Your task to perform on an android device: Go to privacy settings Image 0: 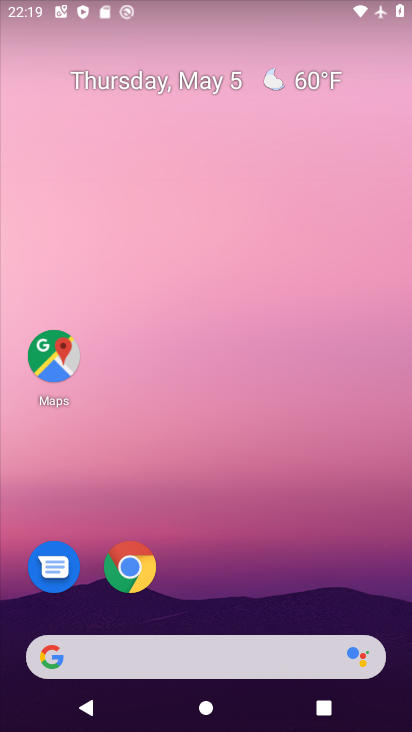
Step 0: click (147, 586)
Your task to perform on an android device: Go to privacy settings Image 1: 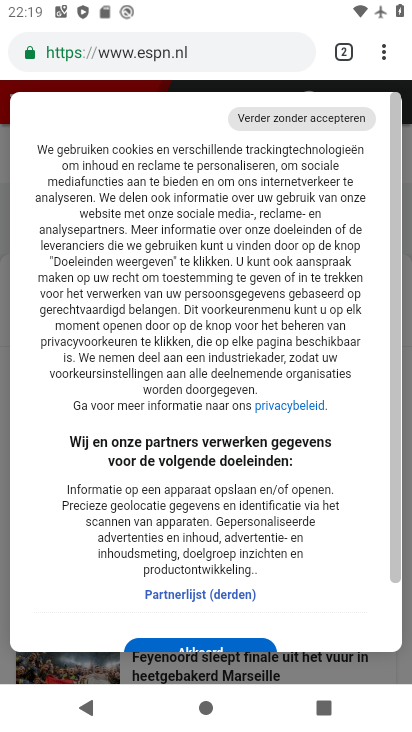
Step 1: click (392, 48)
Your task to perform on an android device: Go to privacy settings Image 2: 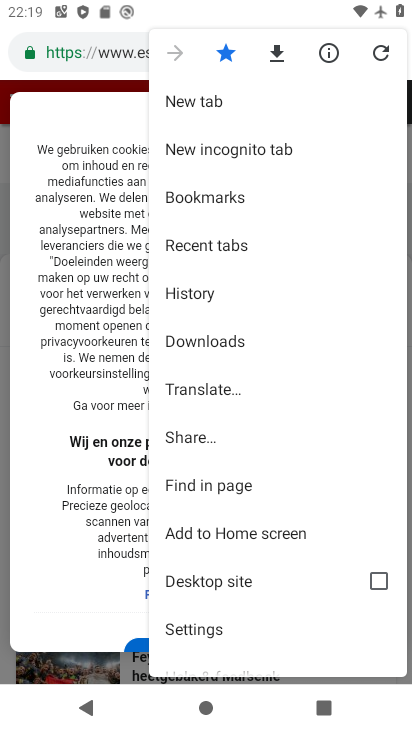
Step 2: click (191, 639)
Your task to perform on an android device: Go to privacy settings Image 3: 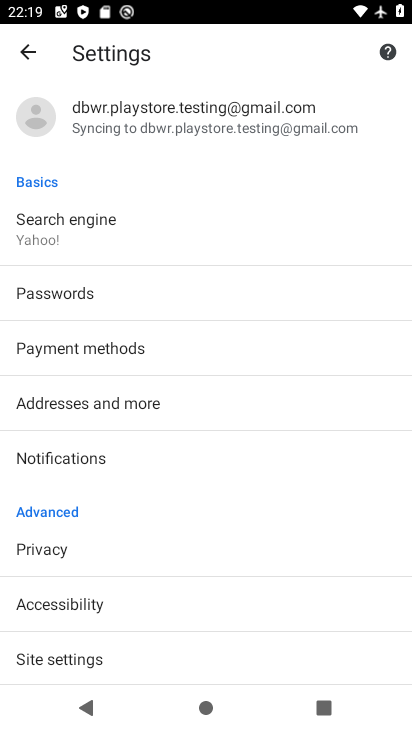
Step 3: click (68, 543)
Your task to perform on an android device: Go to privacy settings Image 4: 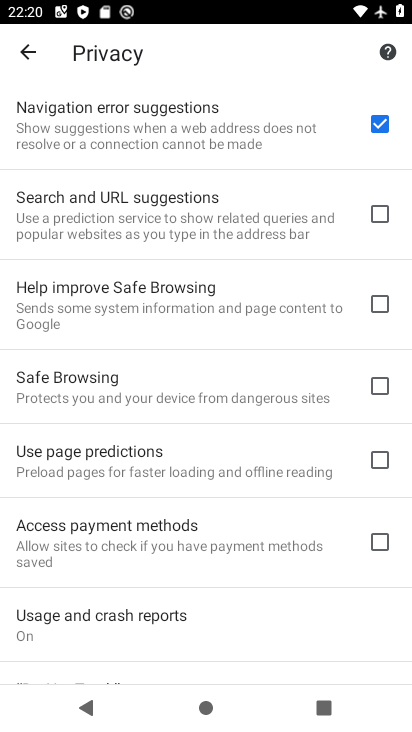
Step 4: task complete